Your task to perform on an android device: change the upload size in google photos Image 0: 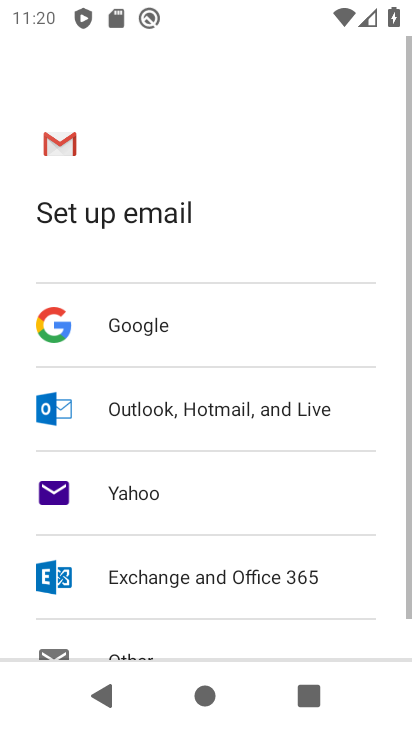
Step 0: press home button
Your task to perform on an android device: change the upload size in google photos Image 1: 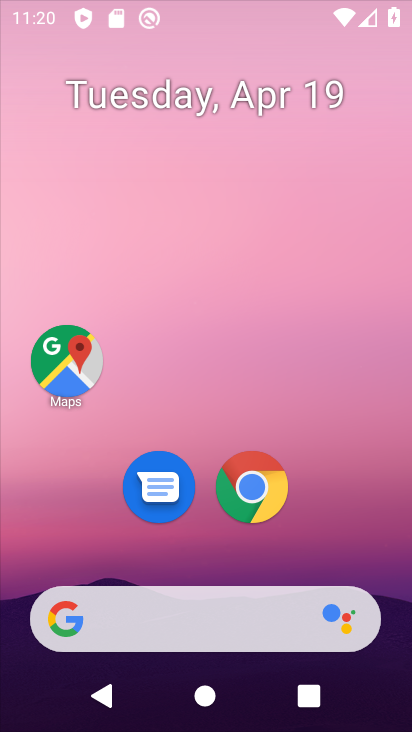
Step 1: drag from (363, 561) to (283, 49)
Your task to perform on an android device: change the upload size in google photos Image 2: 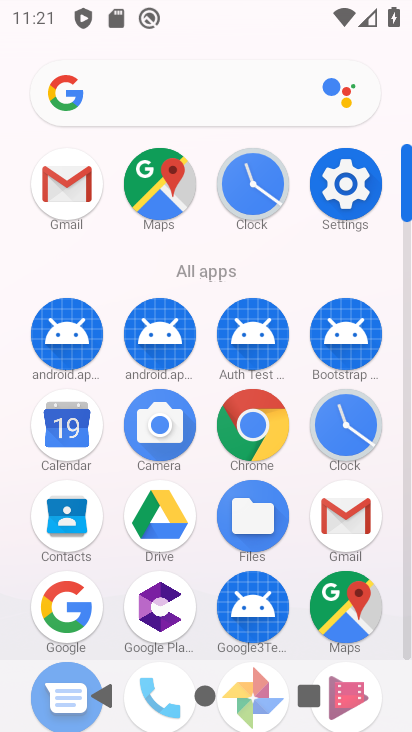
Step 2: click (251, 682)
Your task to perform on an android device: change the upload size in google photos Image 3: 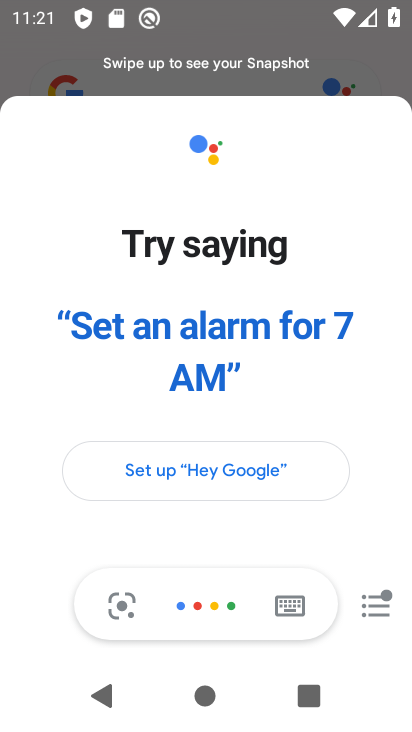
Step 3: press back button
Your task to perform on an android device: change the upload size in google photos Image 4: 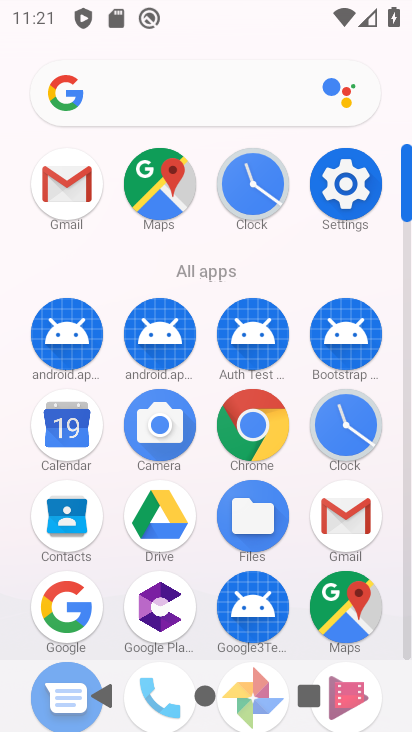
Step 4: click (409, 655)
Your task to perform on an android device: change the upload size in google photos Image 5: 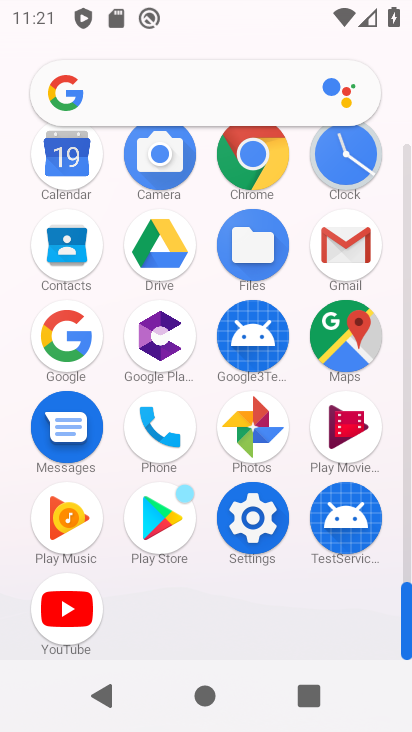
Step 5: click (273, 431)
Your task to perform on an android device: change the upload size in google photos Image 6: 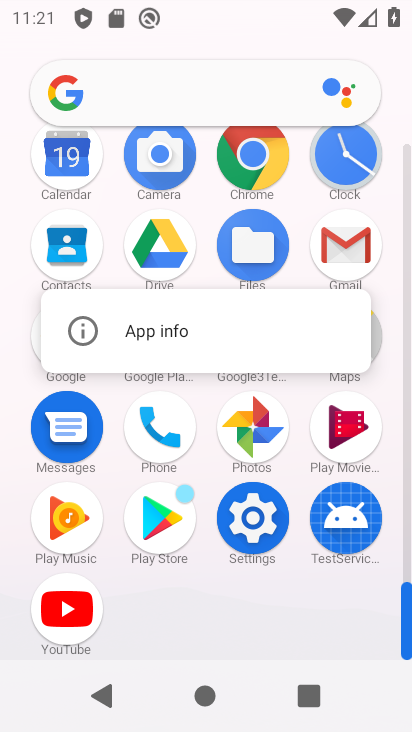
Step 6: click (255, 439)
Your task to perform on an android device: change the upload size in google photos Image 7: 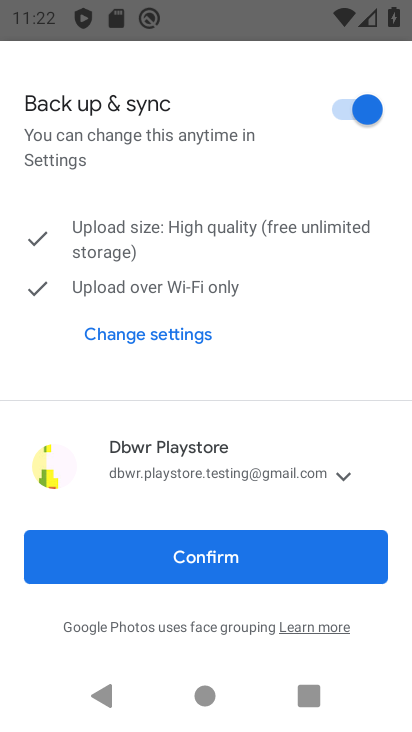
Step 7: click (203, 561)
Your task to perform on an android device: change the upload size in google photos Image 8: 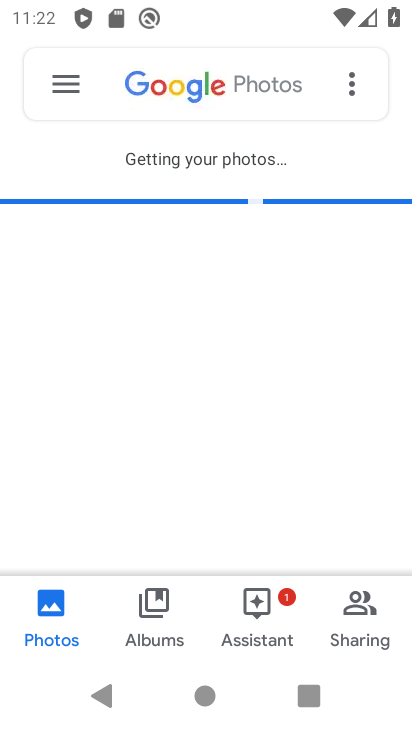
Step 8: click (63, 76)
Your task to perform on an android device: change the upload size in google photos Image 9: 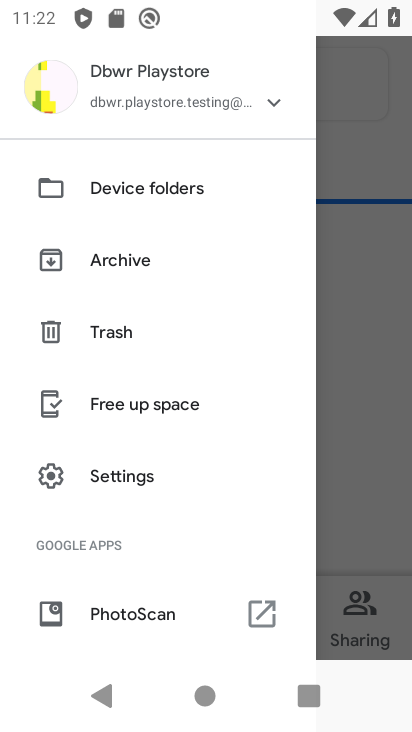
Step 9: drag from (132, 546) to (130, 229)
Your task to perform on an android device: change the upload size in google photos Image 10: 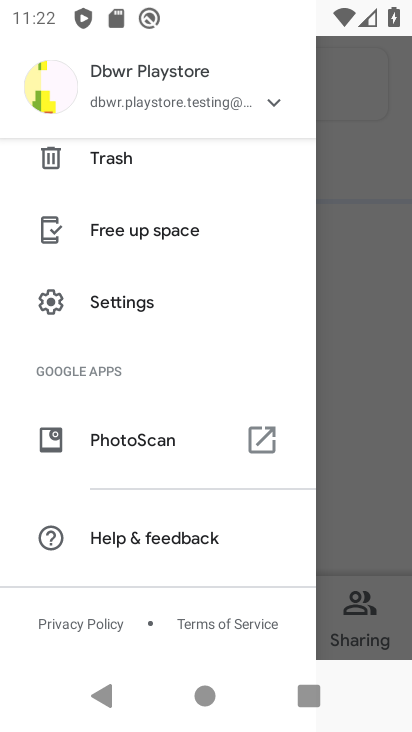
Step 10: click (117, 305)
Your task to perform on an android device: change the upload size in google photos Image 11: 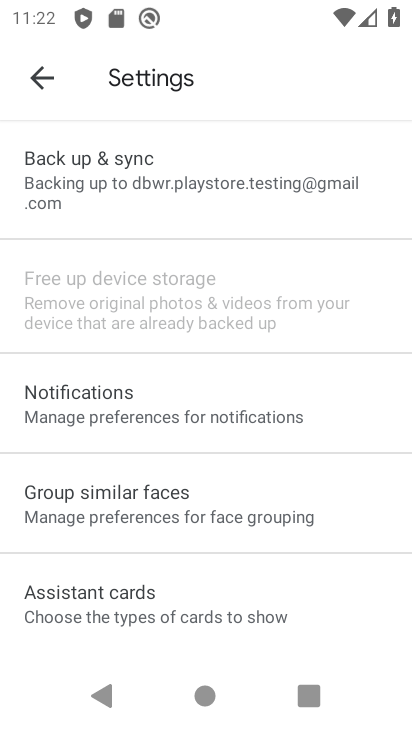
Step 11: click (154, 177)
Your task to perform on an android device: change the upload size in google photos Image 12: 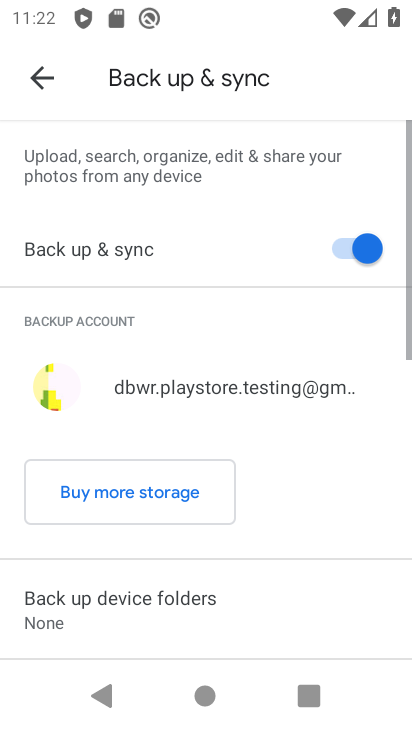
Step 12: drag from (144, 592) to (168, 148)
Your task to perform on an android device: change the upload size in google photos Image 13: 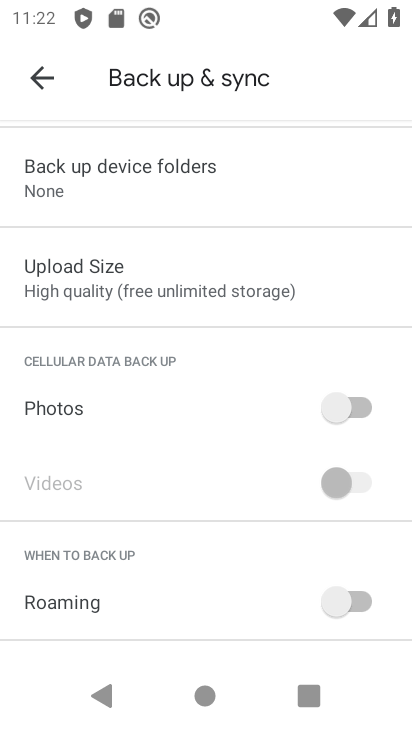
Step 13: click (176, 291)
Your task to perform on an android device: change the upload size in google photos Image 14: 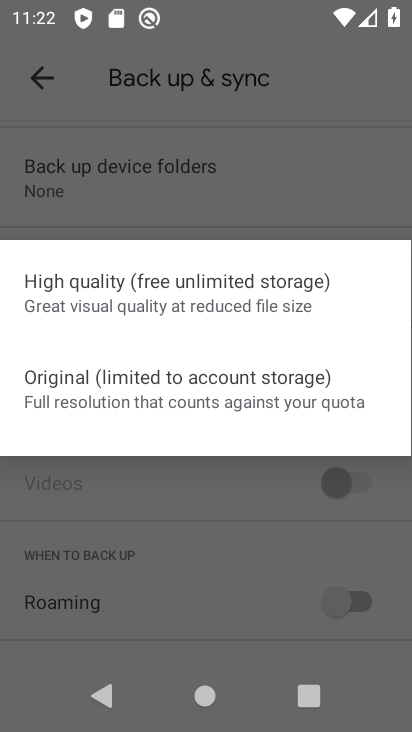
Step 14: click (166, 404)
Your task to perform on an android device: change the upload size in google photos Image 15: 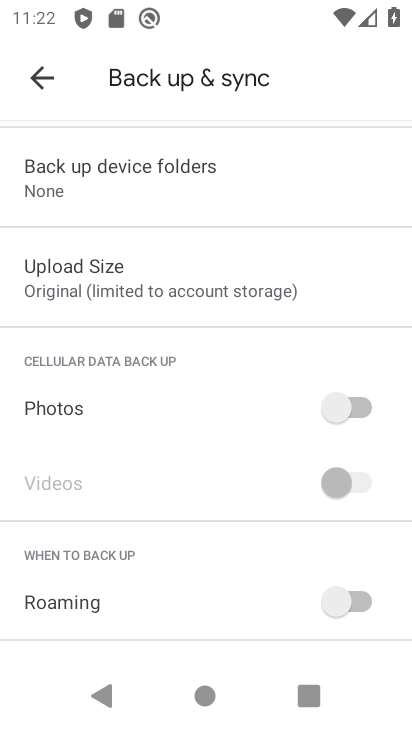
Step 15: task complete